Your task to perform on an android device: Go to notification settings Image 0: 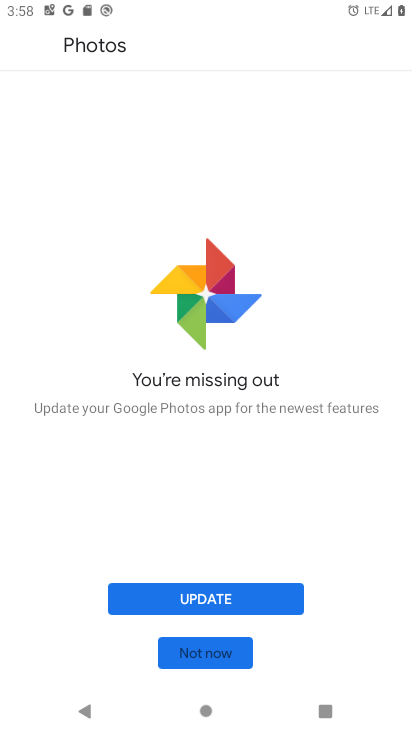
Step 0: press home button
Your task to perform on an android device: Go to notification settings Image 1: 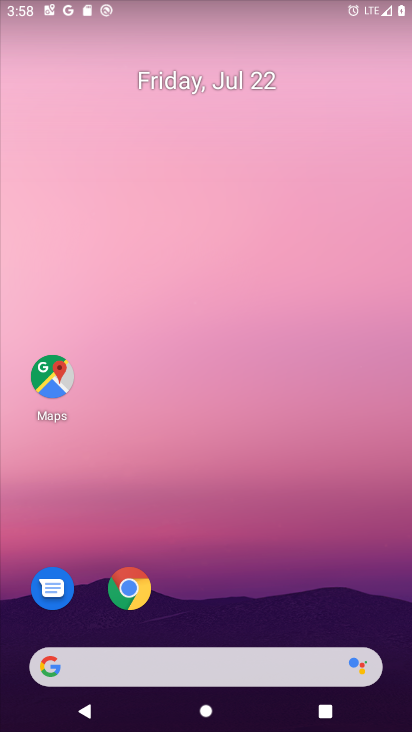
Step 1: drag from (237, 540) to (282, 153)
Your task to perform on an android device: Go to notification settings Image 2: 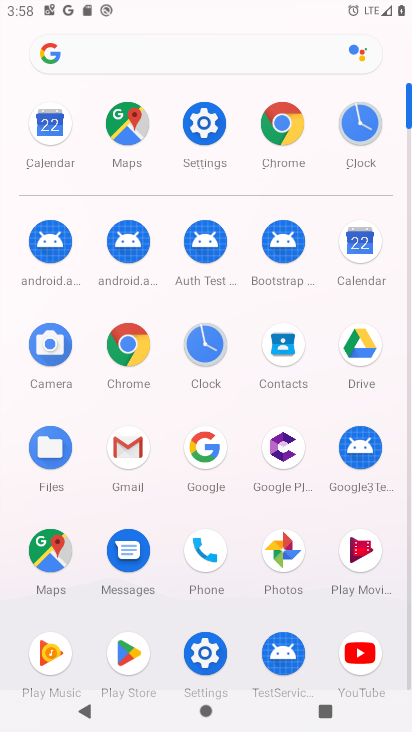
Step 2: click (203, 651)
Your task to perform on an android device: Go to notification settings Image 3: 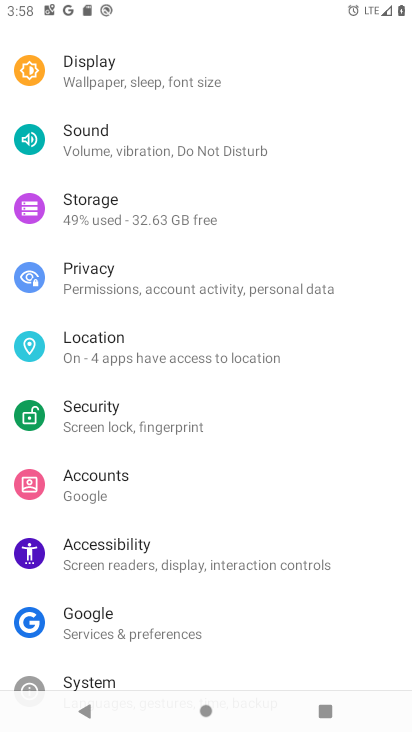
Step 3: drag from (159, 118) to (115, 519)
Your task to perform on an android device: Go to notification settings Image 4: 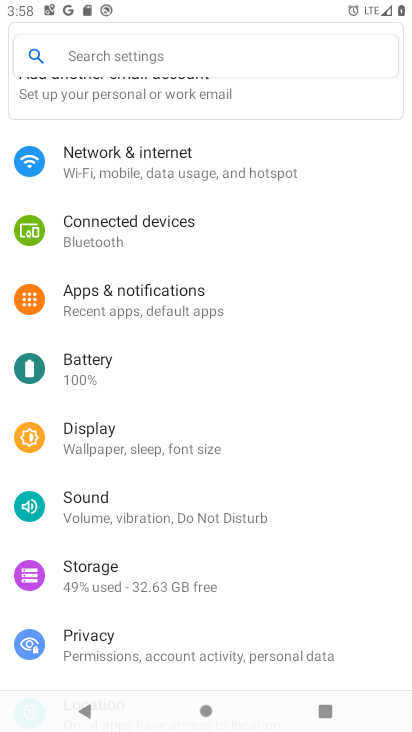
Step 4: click (115, 293)
Your task to perform on an android device: Go to notification settings Image 5: 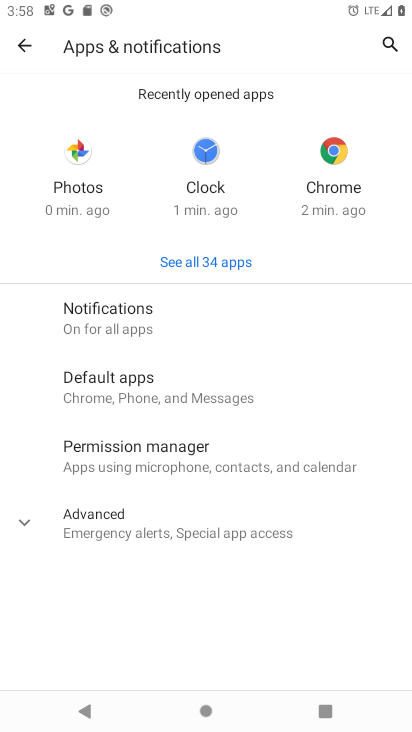
Step 5: click (101, 318)
Your task to perform on an android device: Go to notification settings Image 6: 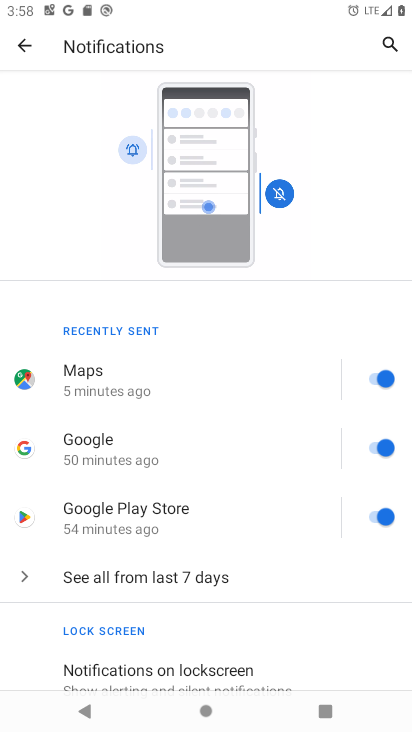
Step 6: task complete